Your task to perform on an android device: Search for Italian restaurants on Maps Image 0: 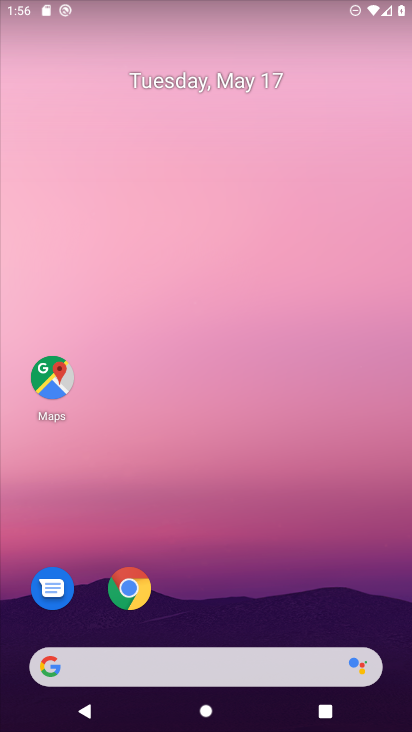
Step 0: click (43, 391)
Your task to perform on an android device: Search for Italian restaurants on Maps Image 1: 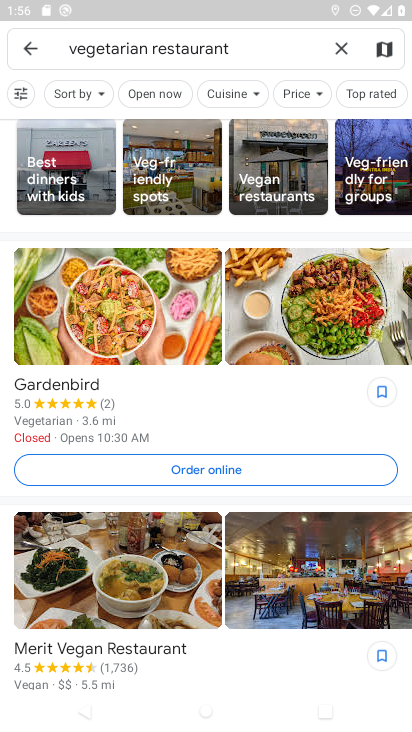
Step 1: press back button
Your task to perform on an android device: Search for Italian restaurants on Maps Image 2: 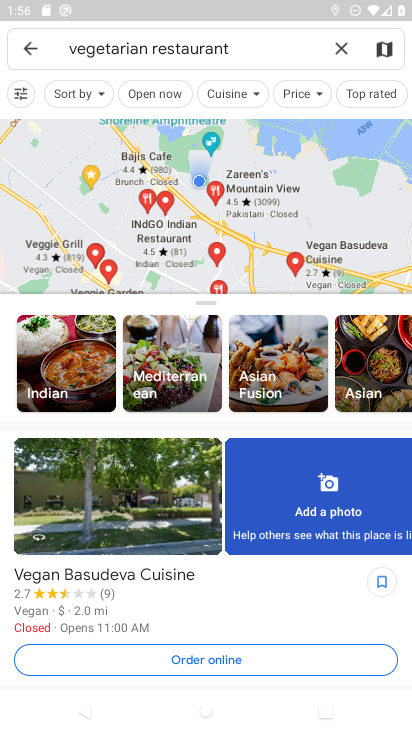
Step 2: click (337, 47)
Your task to perform on an android device: Search for Italian restaurants on Maps Image 3: 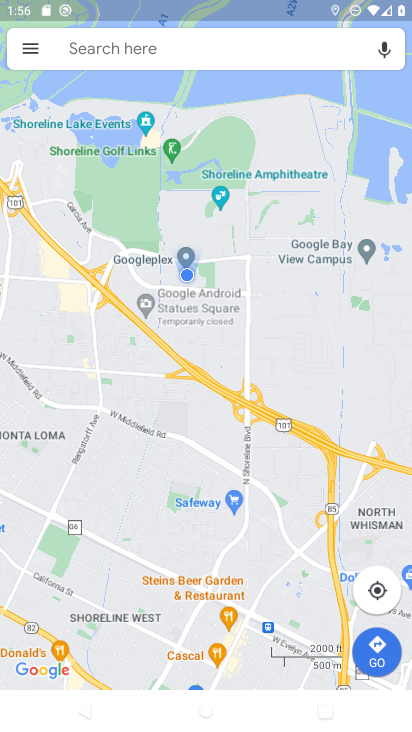
Step 3: click (318, 54)
Your task to perform on an android device: Search for Italian restaurants on Maps Image 4: 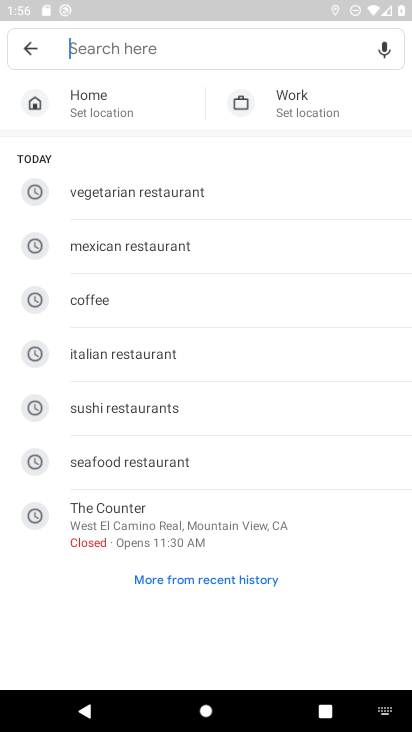
Step 4: click (170, 352)
Your task to perform on an android device: Search for Italian restaurants on Maps Image 5: 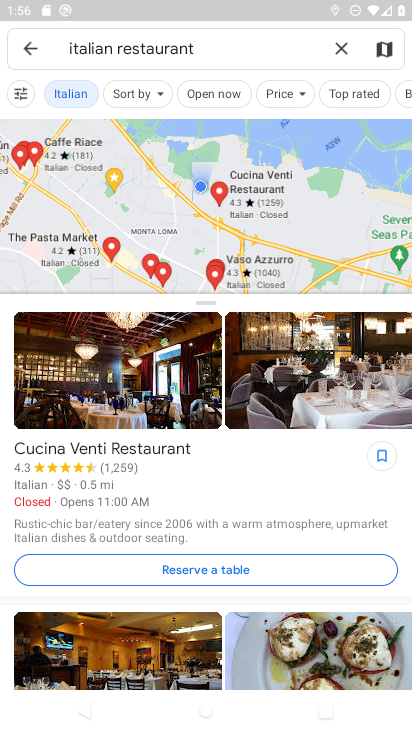
Step 5: drag from (166, 476) to (200, 232)
Your task to perform on an android device: Search for Italian restaurants on Maps Image 6: 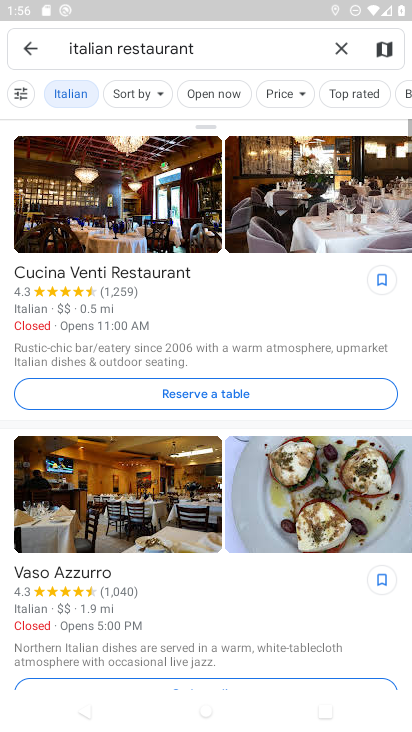
Step 6: click (204, 197)
Your task to perform on an android device: Search for Italian restaurants on Maps Image 7: 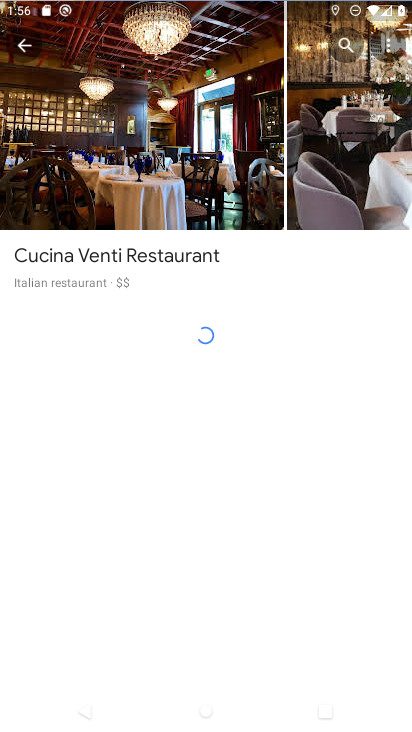
Step 7: task complete